Your task to perform on an android device: search for starred emails in the gmail app Image 0: 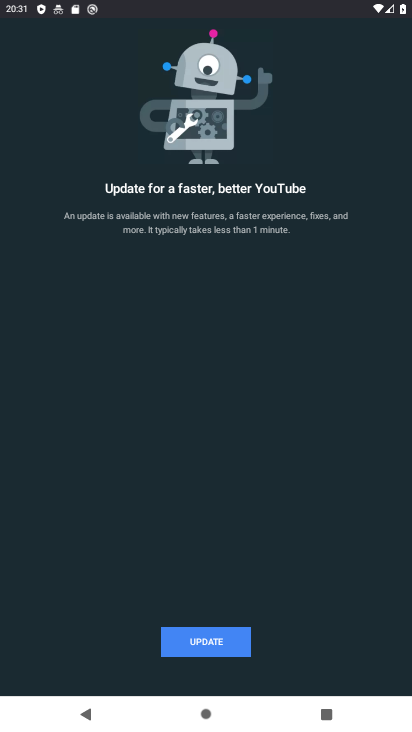
Step 0: press home button
Your task to perform on an android device: search for starred emails in the gmail app Image 1: 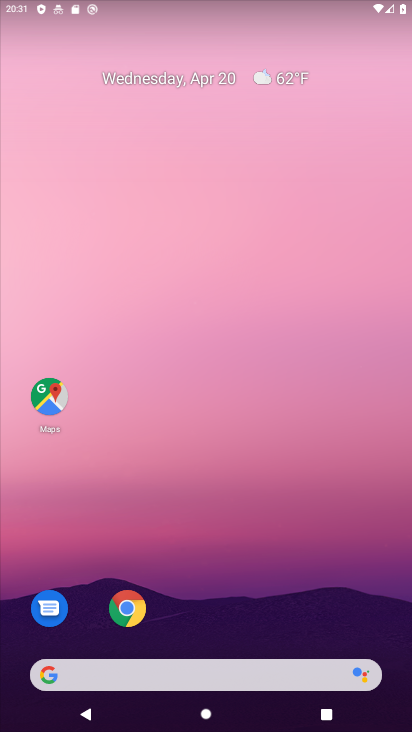
Step 1: drag from (317, 616) to (203, 90)
Your task to perform on an android device: search for starred emails in the gmail app Image 2: 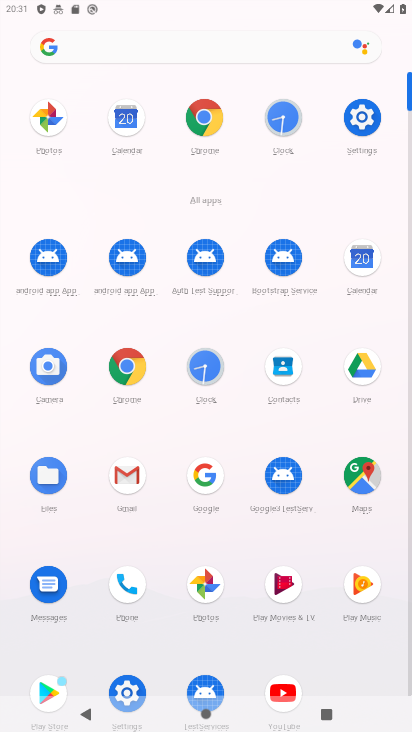
Step 2: click (123, 474)
Your task to perform on an android device: search for starred emails in the gmail app Image 3: 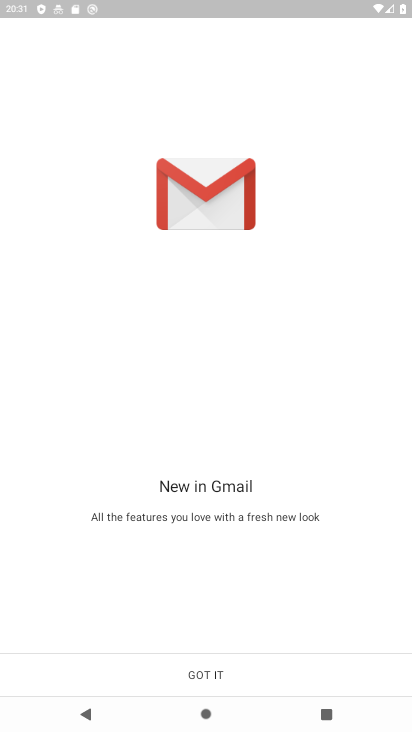
Step 3: click (213, 664)
Your task to perform on an android device: search for starred emails in the gmail app Image 4: 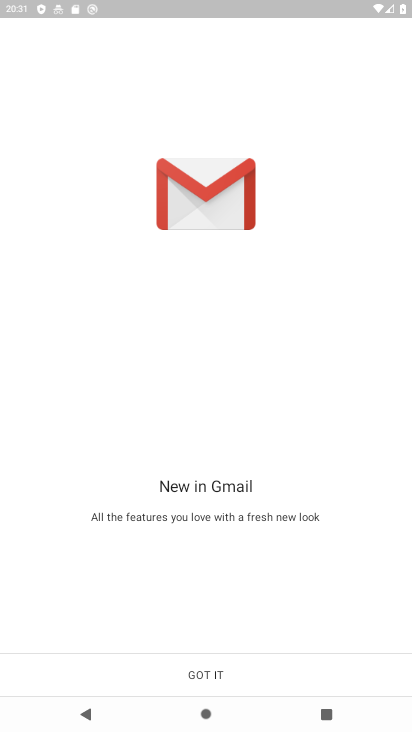
Step 4: click (213, 664)
Your task to perform on an android device: search for starred emails in the gmail app Image 5: 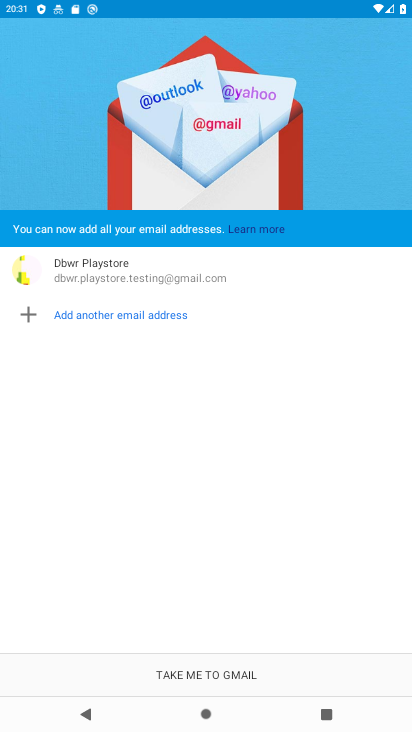
Step 5: click (215, 676)
Your task to perform on an android device: search for starred emails in the gmail app Image 6: 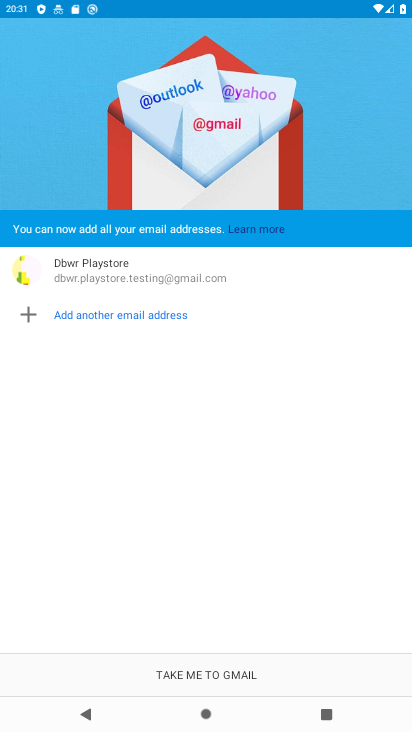
Step 6: click (216, 677)
Your task to perform on an android device: search for starred emails in the gmail app Image 7: 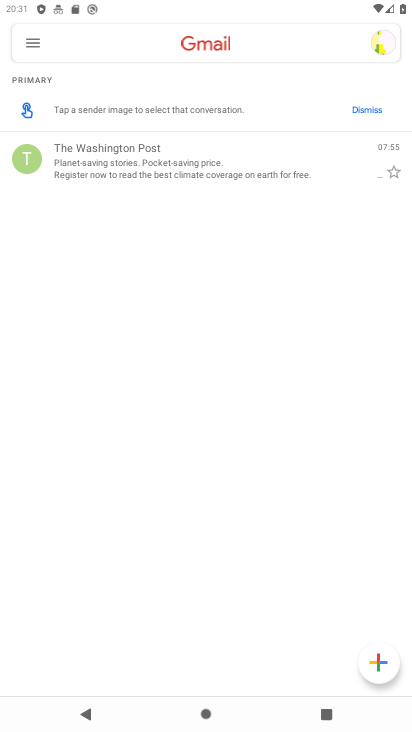
Step 7: click (32, 32)
Your task to perform on an android device: search for starred emails in the gmail app Image 8: 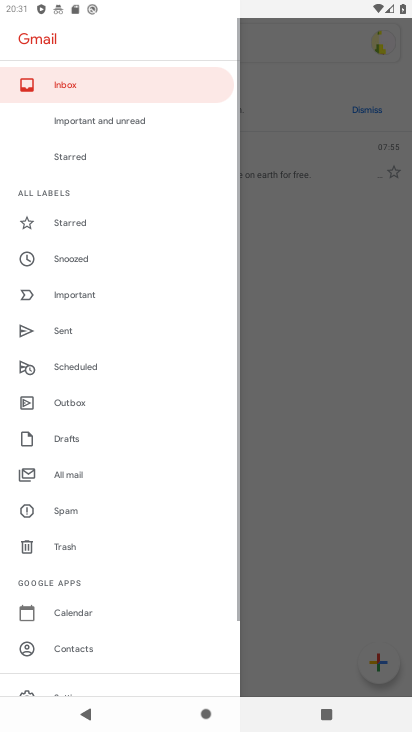
Step 8: drag from (135, 515) to (90, 296)
Your task to perform on an android device: search for starred emails in the gmail app Image 9: 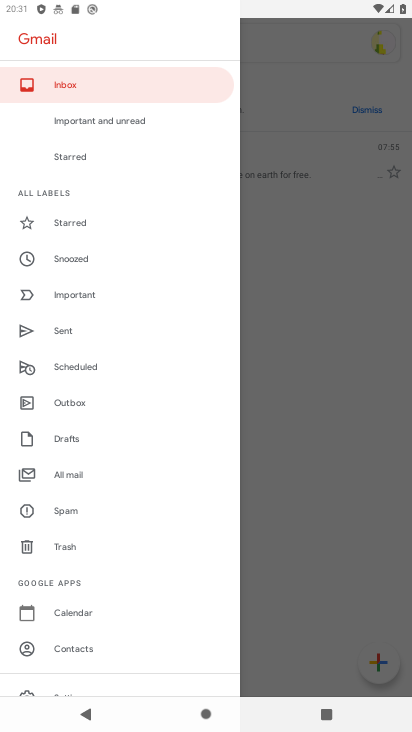
Step 9: click (83, 148)
Your task to perform on an android device: search for starred emails in the gmail app Image 10: 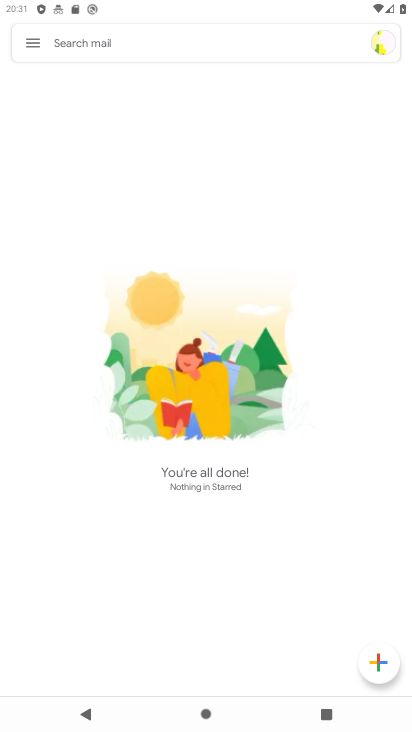
Step 10: task complete